Your task to perform on an android device: Open Youtube and go to the subscriptions tab Image 0: 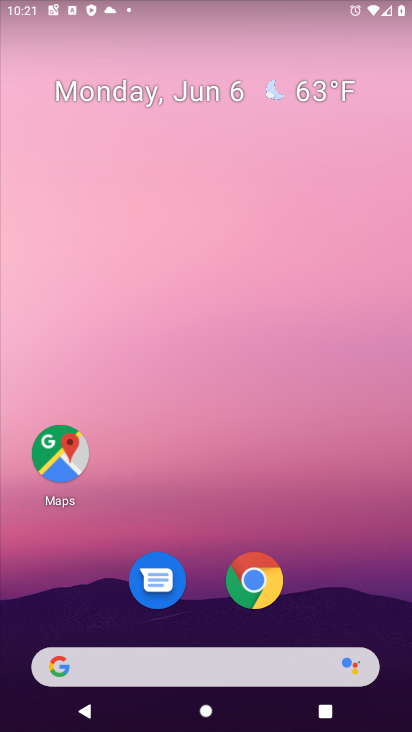
Step 0: drag from (352, 538) to (114, 0)
Your task to perform on an android device: Open Youtube and go to the subscriptions tab Image 1: 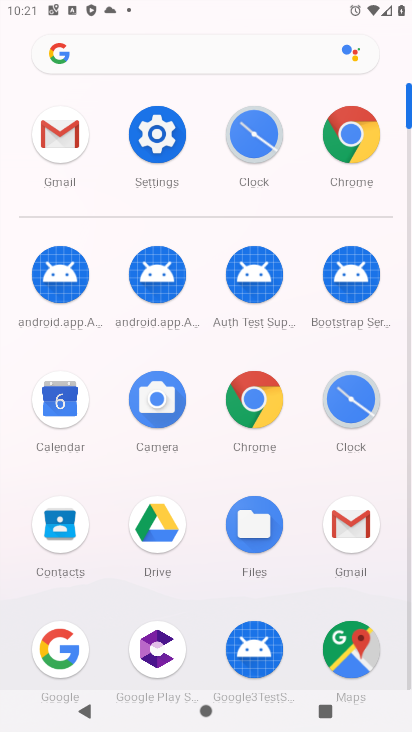
Step 1: drag from (401, 616) to (333, 60)
Your task to perform on an android device: Open Youtube and go to the subscriptions tab Image 2: 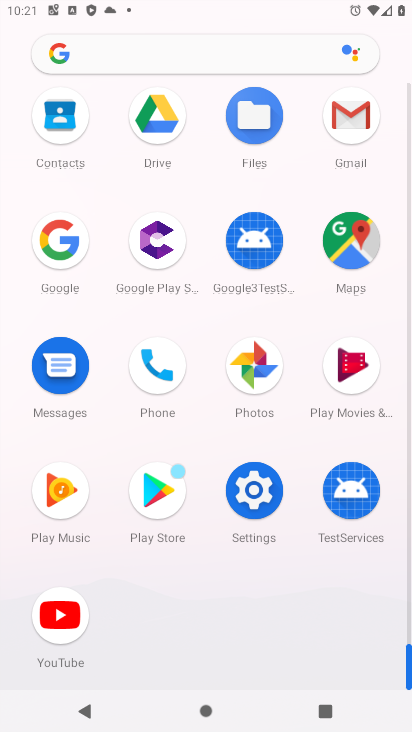
Step 2: click (75, 629)
Your task to perform on an android device: Open Youtube and go to the subscriptions tab Image 3: 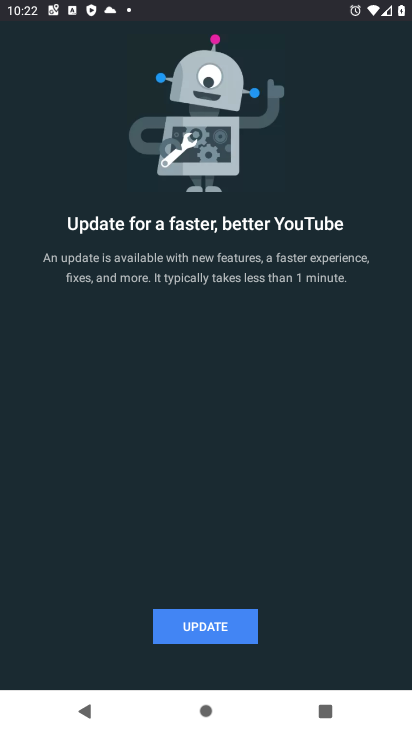
Step 3: click (196, 621)
Your task to perform on an android device: Open Youtube and go to the subscriptions tab Image 4: 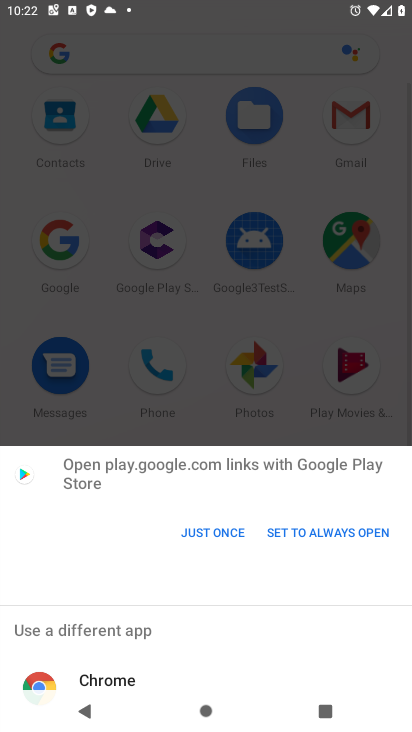
Step 4: click (218, 543)
Your task to perform on an android device: Open Youtube and go to the subscriptions tab Image 5: 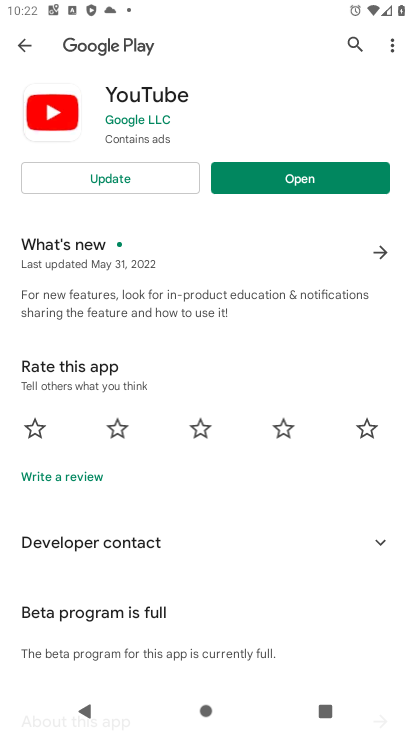
Step 5: click (134, 183)
Your task to perform on an android device: Open Youtube and go to the subscriptions tab Image 6: 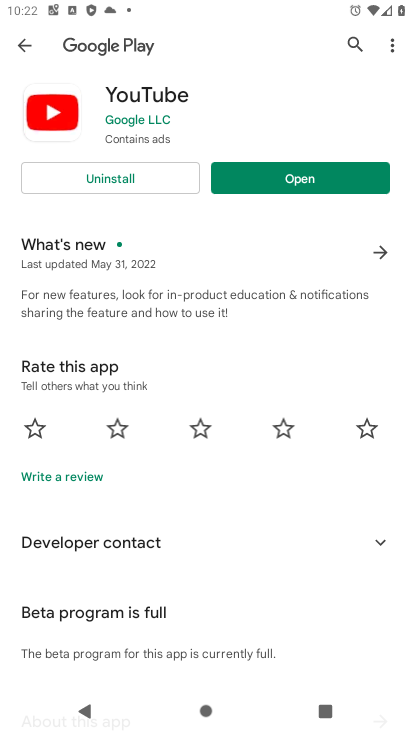
Step 6: click (274, 185)
Your task to perform on an android device: Open Youtube and go to the subscriptions tab Image 7: 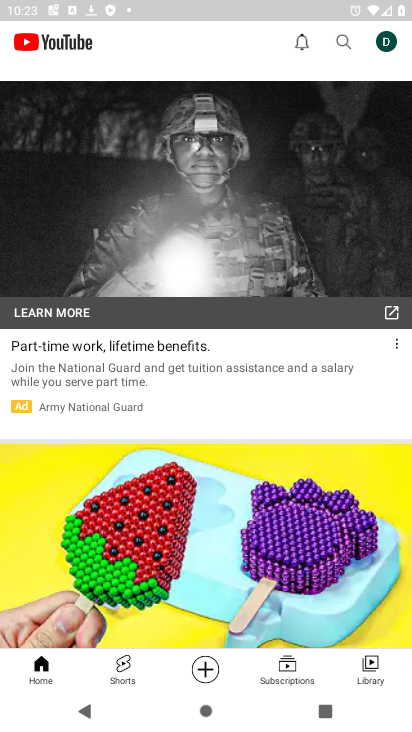
Step 7: click (279, 667)
Your task to perform on an android device: Open Youtube and go to the subscriptions tab Image 8: 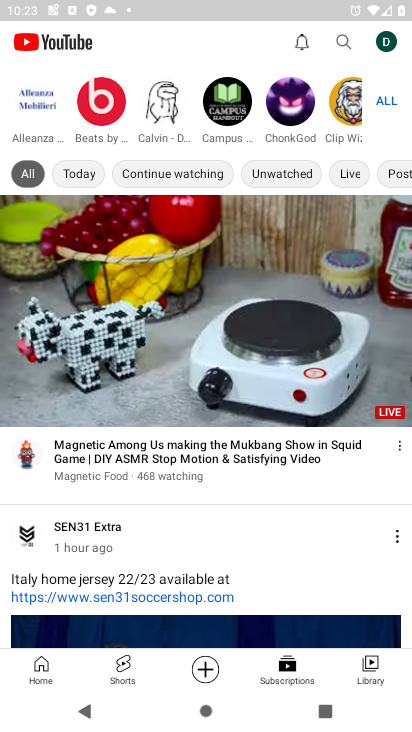
Step 8: task complete